Your task to perform on an android device: Go to Reddit.com Image 0: 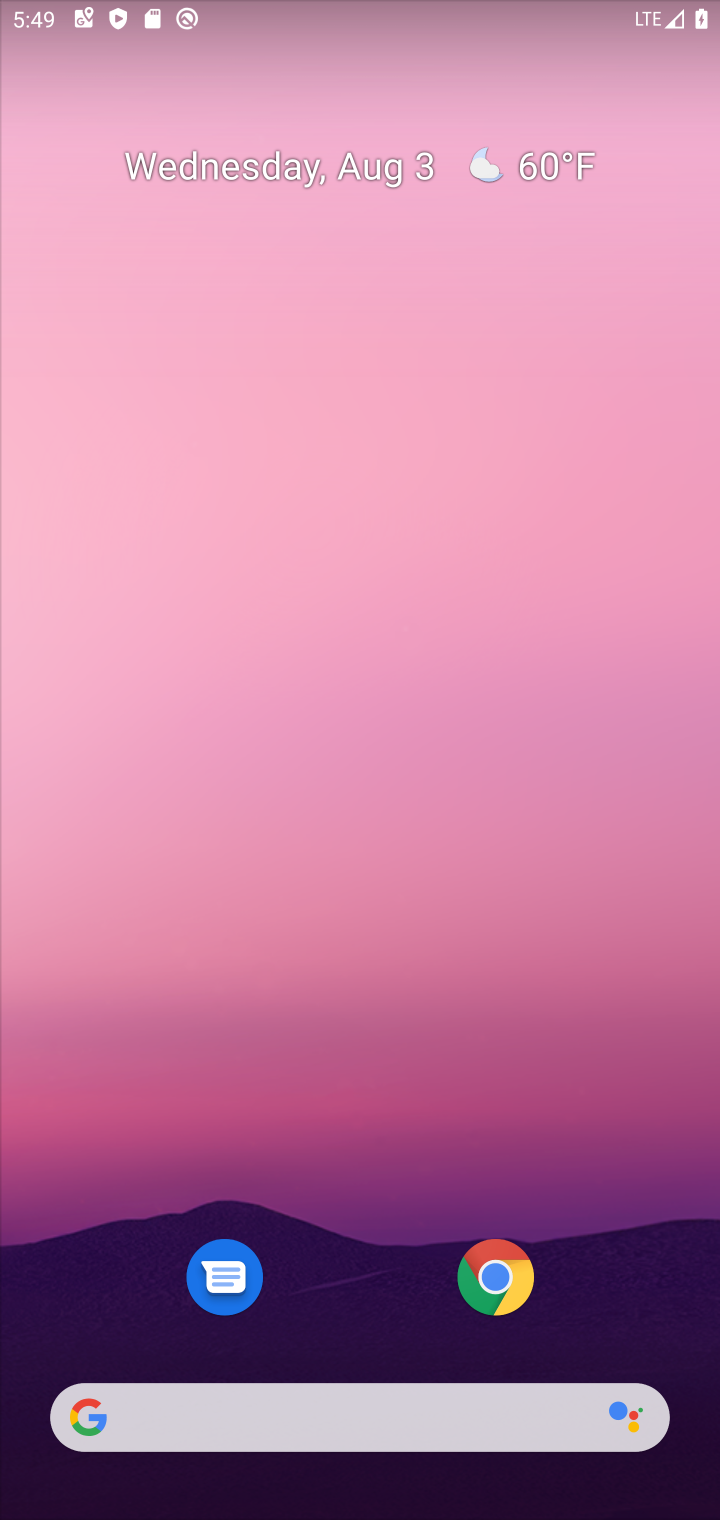
Step 0: drag from (445, 959) to (517, 26)
Your task to perform on an android device: Go to Reddit.com Image 1: 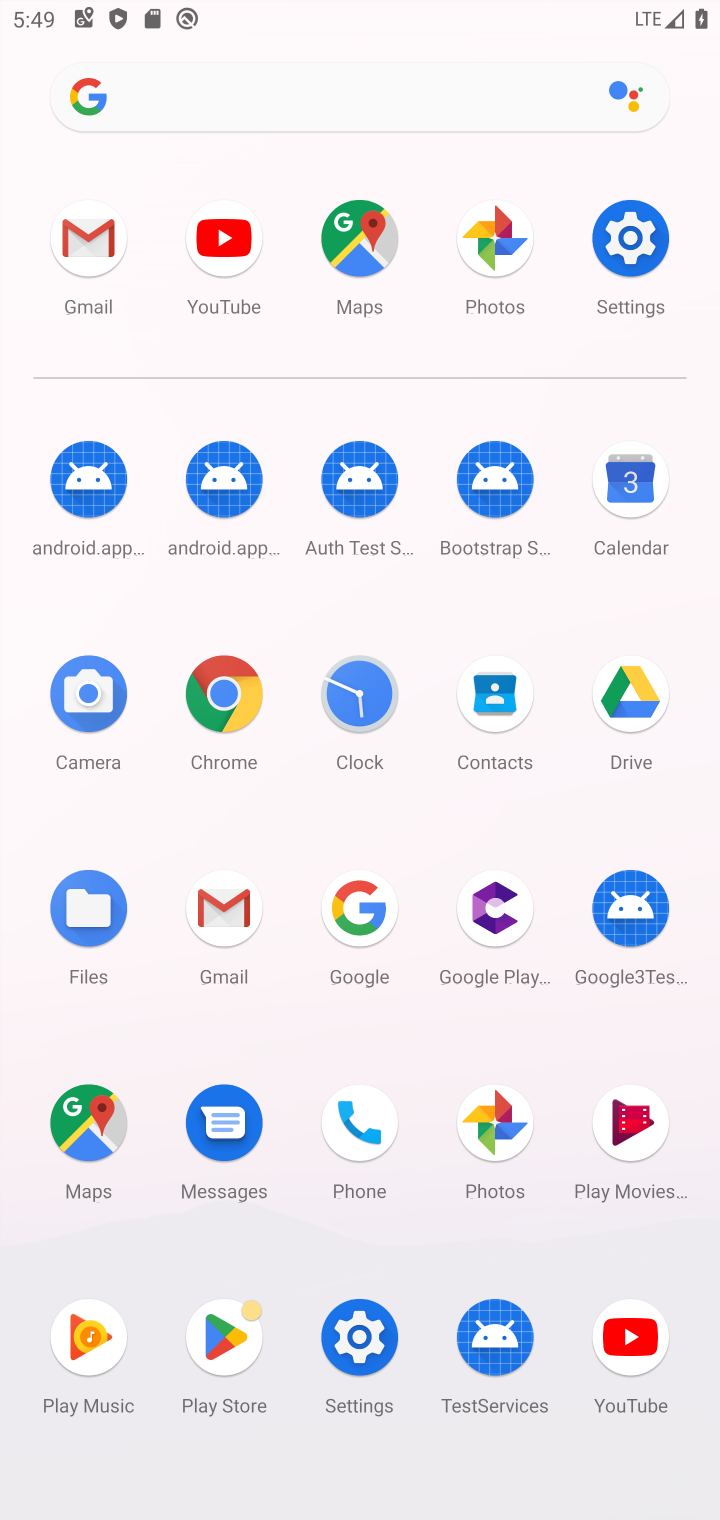
Step 1: click (645, 225)
Your task to perform on an android device: Go to Reddit.com Image 2: 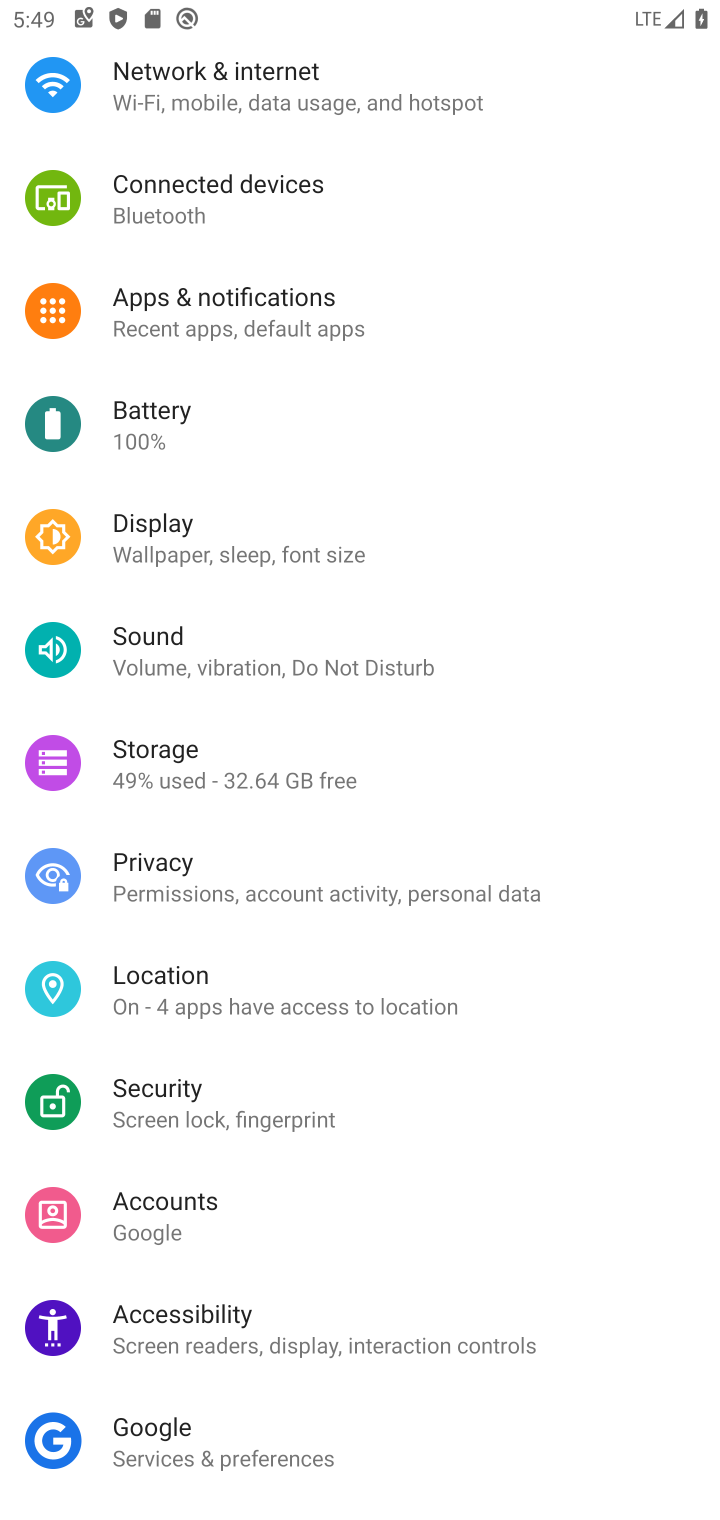
Step 2: press back button
Your task to perform on an android device: Go to Reddit.com Image 3: 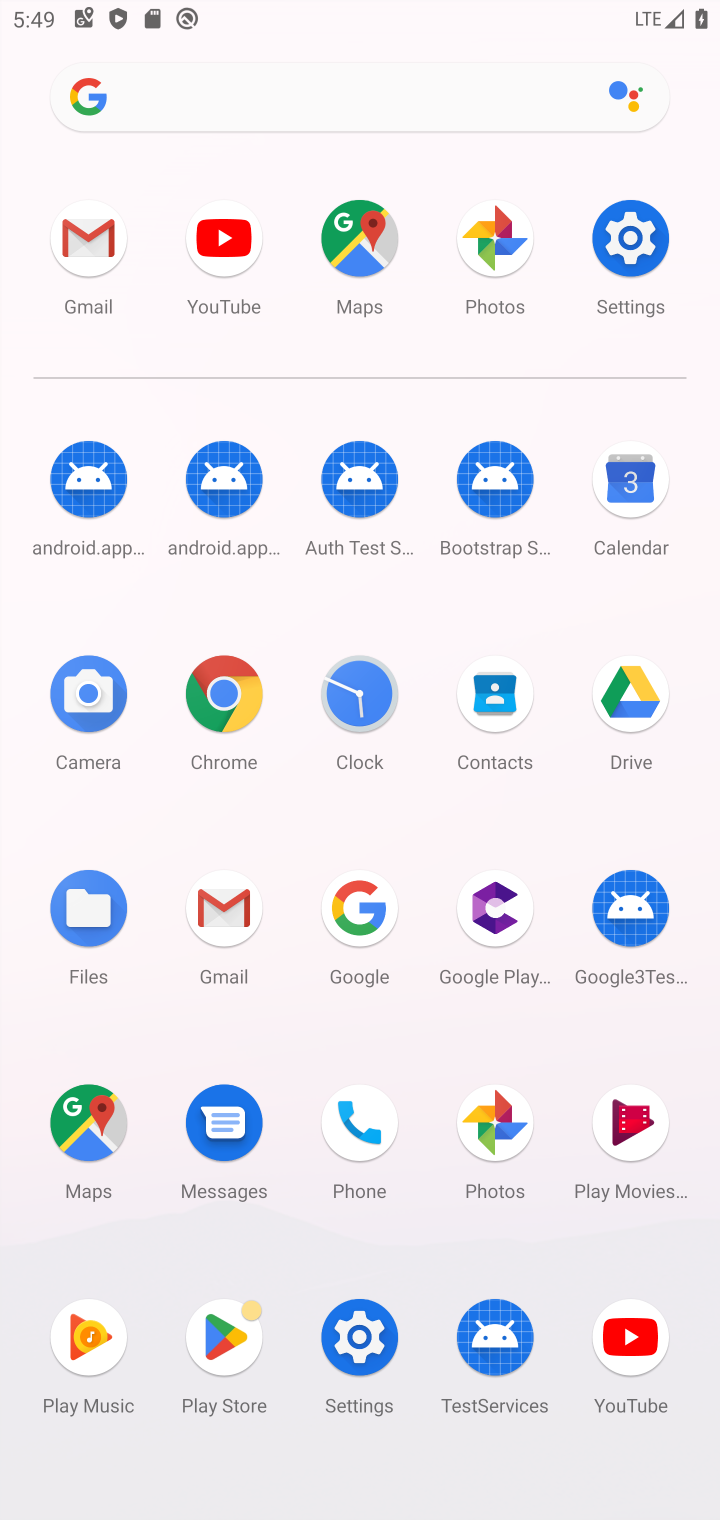
Step 3: click (201, 688)
Your task to perform on an android device: Go to Reddit.com Image 4: 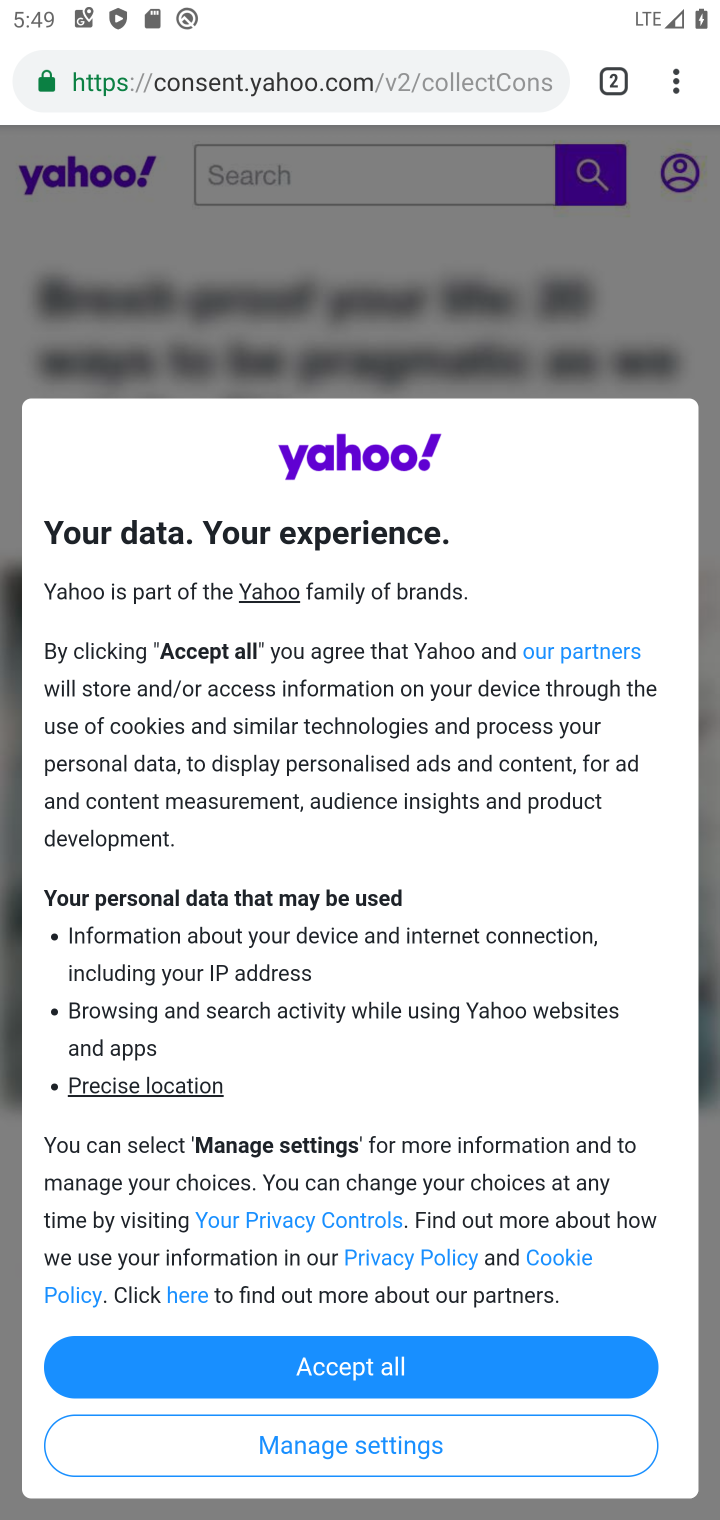
Step 4: click (607, 92)
Your task to perform on an android device: Go to Reddit.com Image 5: 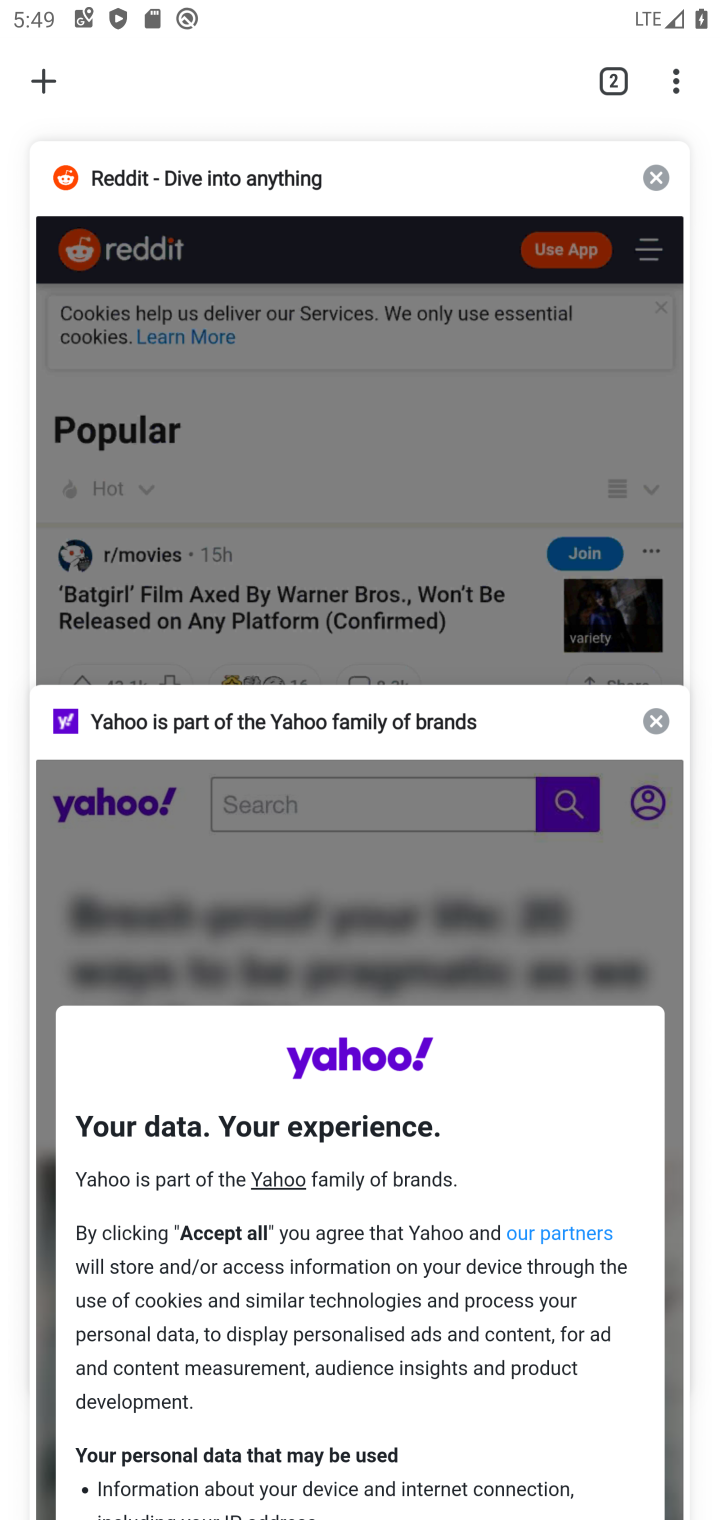
Step 5: click (82, 196)
Your task to perform on an android device: Go to Reddit.com Image 6: 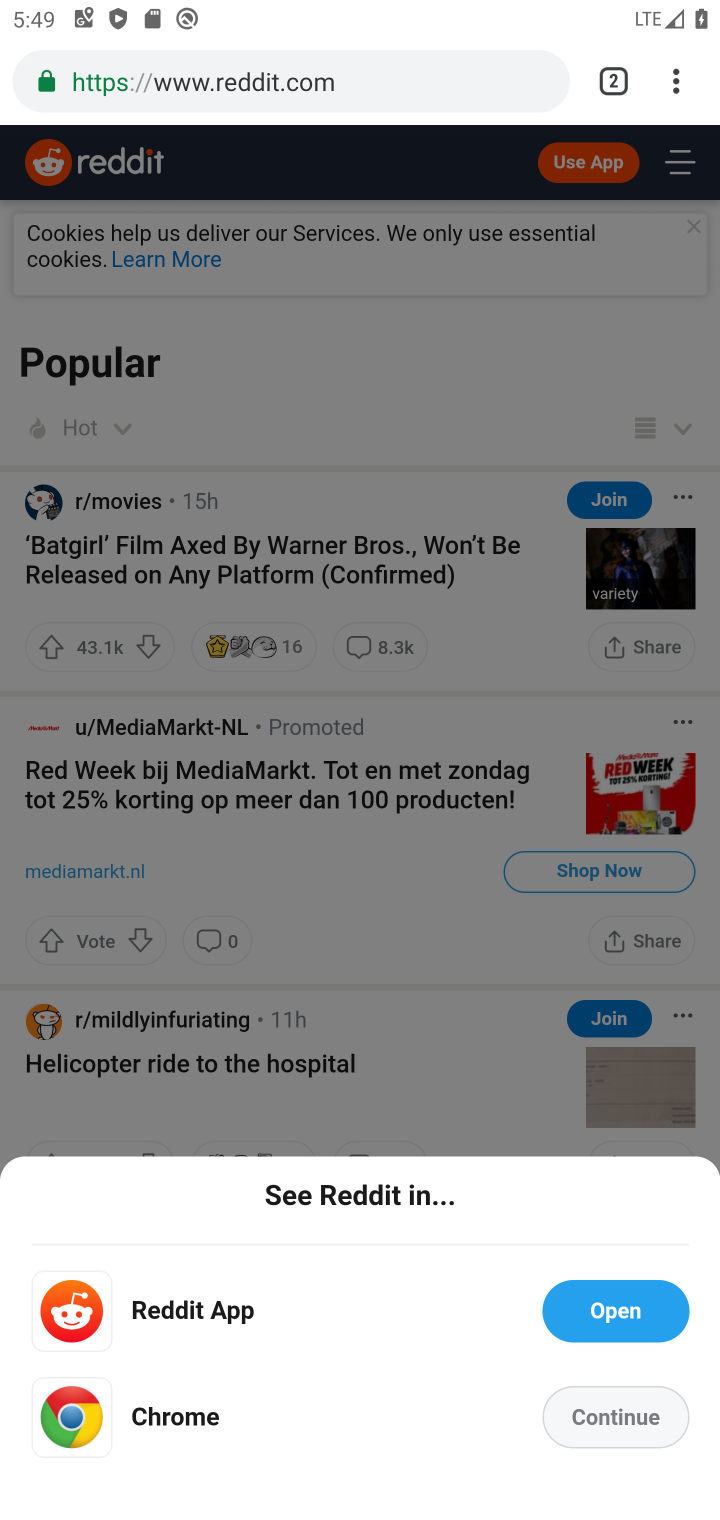
Step 6: task complete